Your task to perform on an android device: toggle improve location accuracy Image 0: 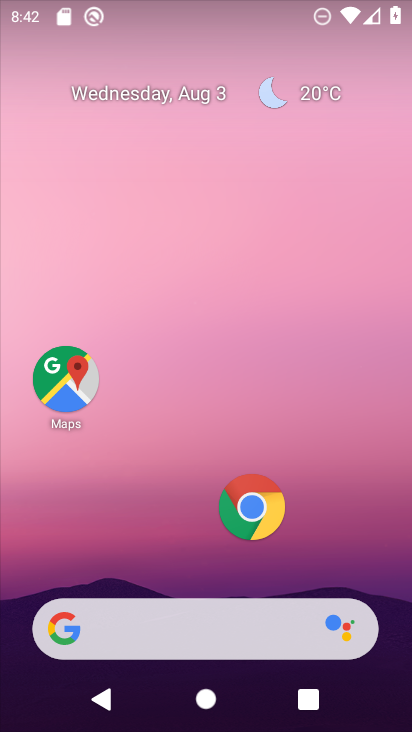
Step 0: drag from (223, 554) to (194, 9)
Your task to perform on an android device: toggle improve location accuracy Image 1: 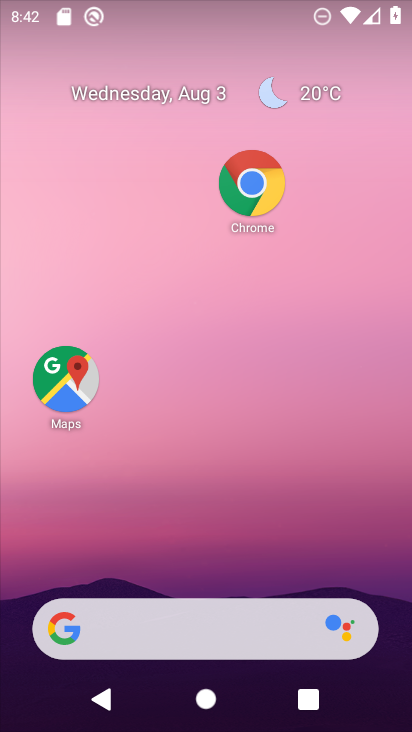
Step 1: drag from (177, 549) to (145, 85)
Your task to perform on an android device: toggle improve location accuracy Image 2: 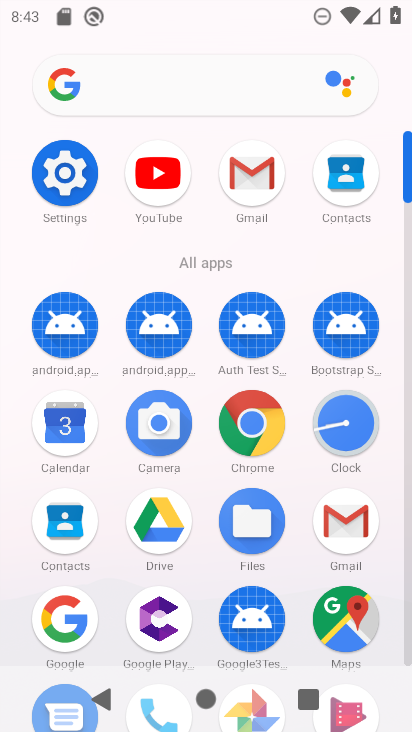
Step 2: click (61, 179)
Your task to perform on an android device: toggle improve location accuracy Image 3: 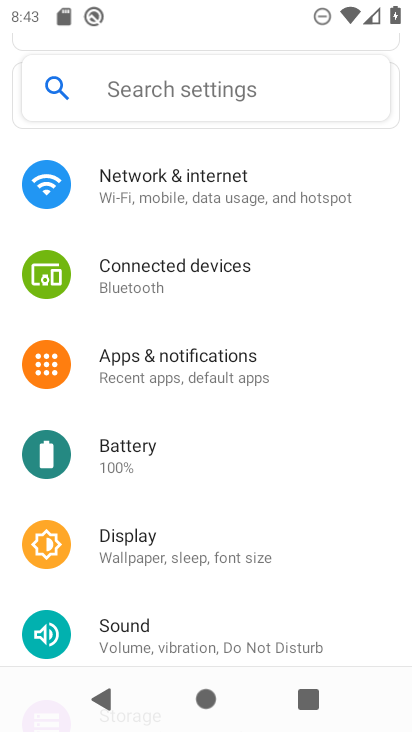
Step 3: drag from (214, 574) to (322, 5)
Your task to perform on an android device: toggle improve location accuracy Image 4: 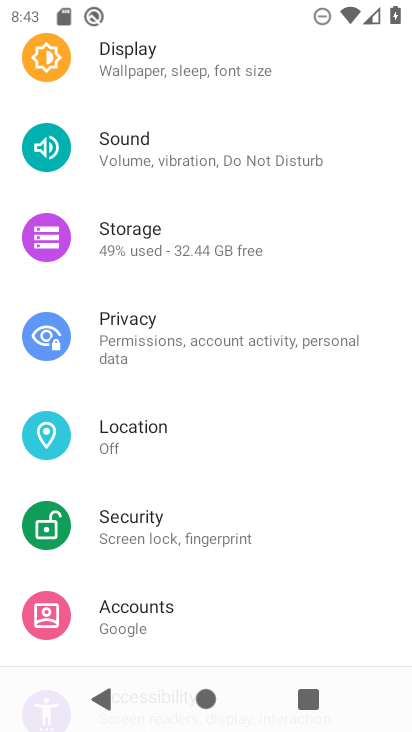
Step 4: click (134, 445)
Your task to perform on an android device: toggle improve location accuracy Image 5: 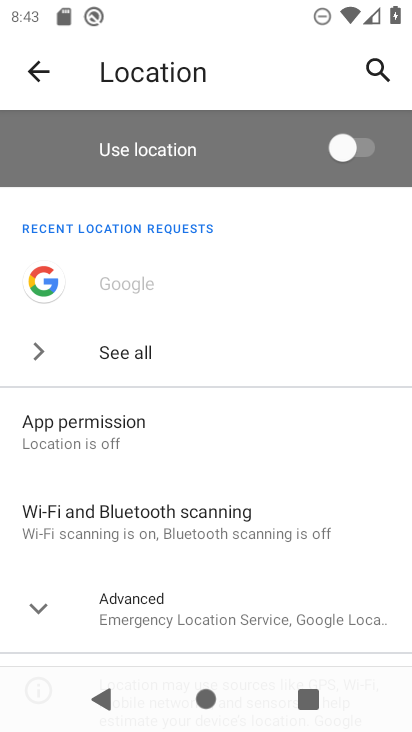
Step 5: drag from (136, 537) to (173, 246)
Your task to perform on an android device: toggle improve location accuracy Image 6: 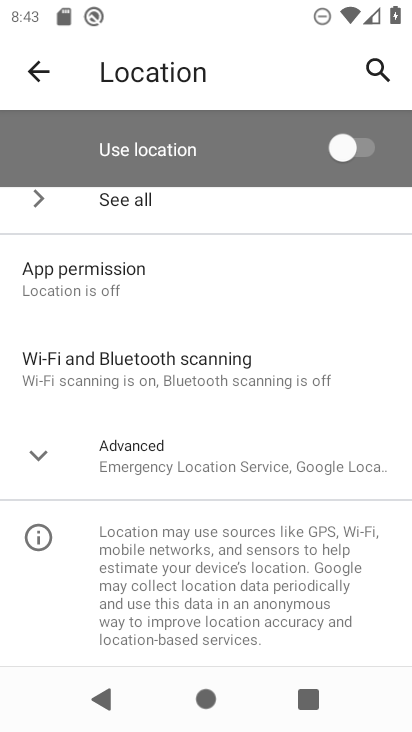
Step 6: click (120, 461)
Your task to perform on an android device: toggle improve location accuracy Image 7: 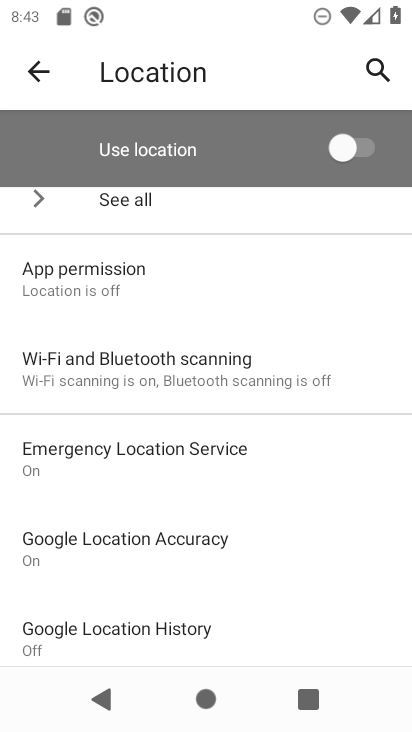
Step 7: click (146, 548)
Your task to perform on an android device: toggle improve location accuracy Image 8: 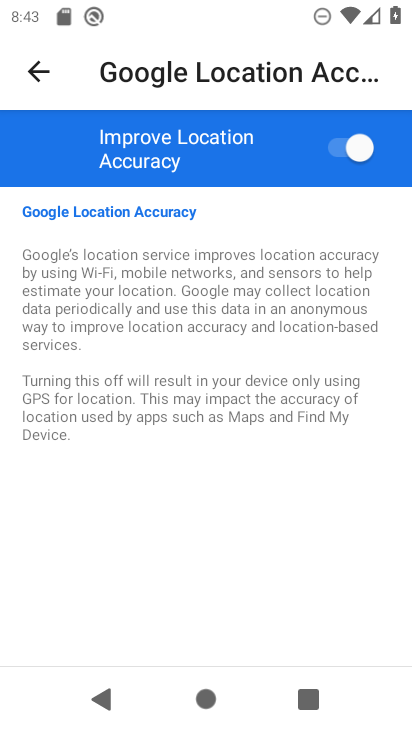
Step 8: click (337, 155)
Your task to perform on an android device: toggle improve location accuracy Image 9: 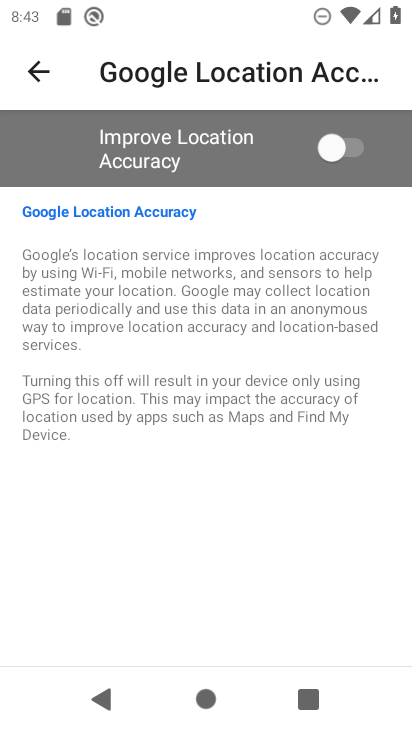
Step 9: task complete